Your task to perform on an android device: Open Google Maps Image 0: 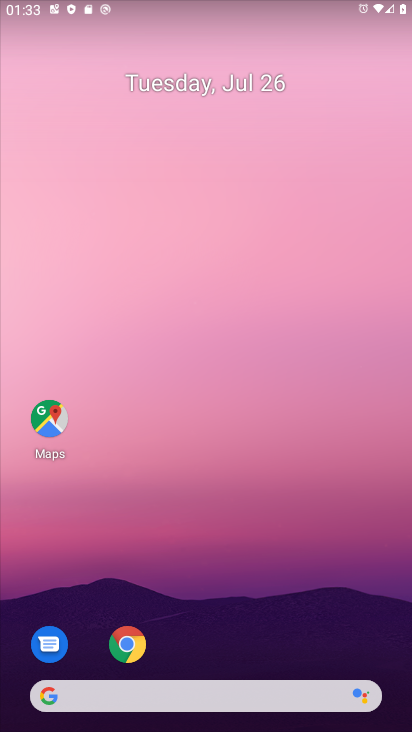
Step 0: drag from (262, 635) to (262, 211)
Your task to perform on an android device: Open Google Maps Image 1: 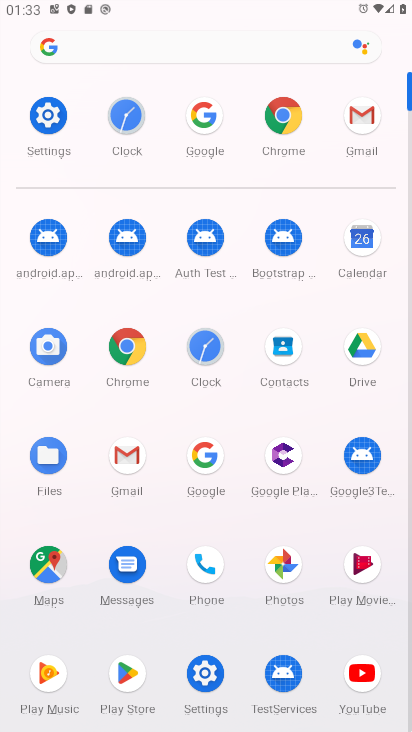
Step 1: click (42, 577)
Your task to perform on an android device: Open Google Maps Image 2: 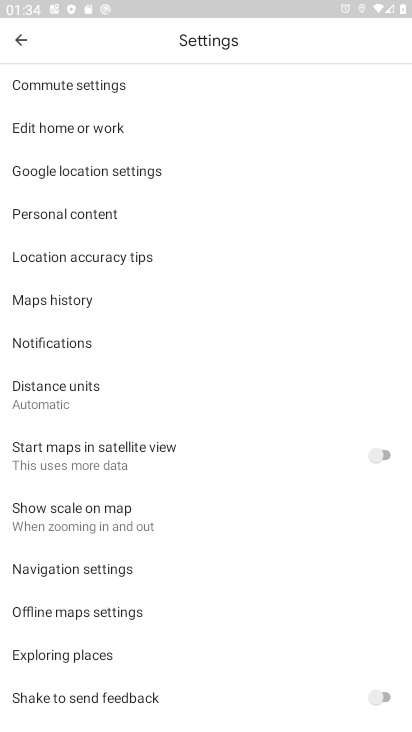
Step 2: click (17, 41)
Your task to perform on an android device: Open Google Maps Image 3: 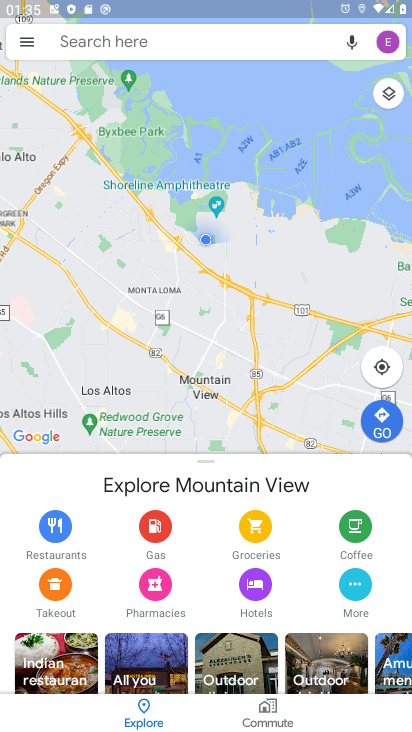
Step 3: task complete